Your task to perform on an android device: move an email to a new category in the gmail app Image 0: 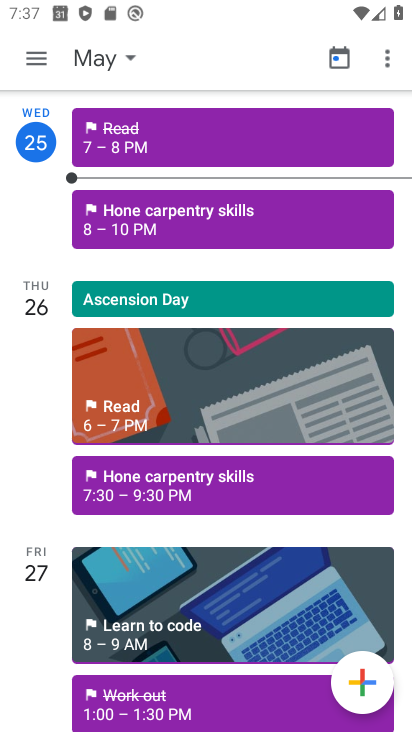
Step 0: press home button
Your task to perform on an android device: move an email to a new category in the gmail app Image 1: 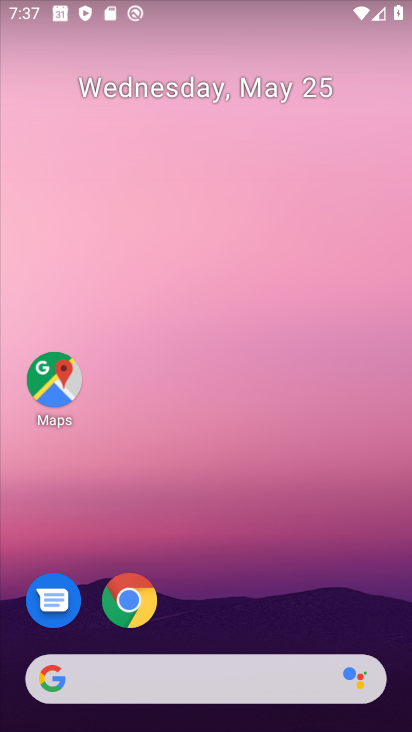
Step 1: drag from (256, 623) to (237, 146)
Your task to perform on an android device: move an email to a new category in the gmail app Image 2: 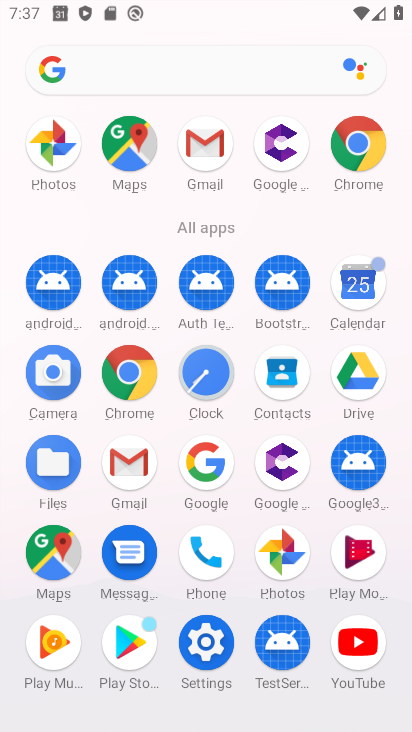
Step 2: click (221, 142)
Your task to perform on an android device: move an email to a new category in the gmail app Image 3: 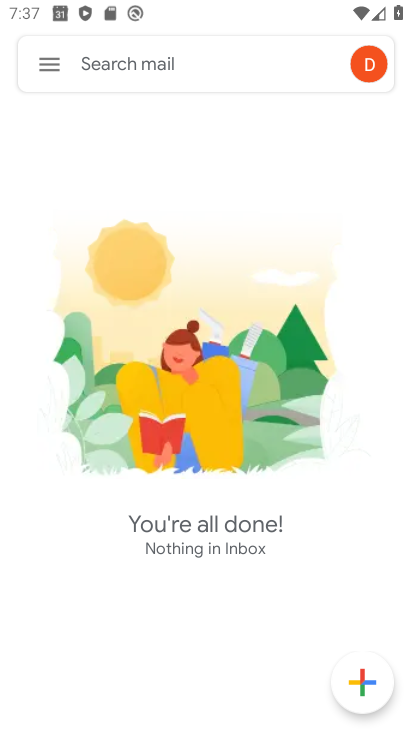
Step 3: click (25, 57)
Your task to perform on an android device: move an email to a new category in the gmail app Image 4: 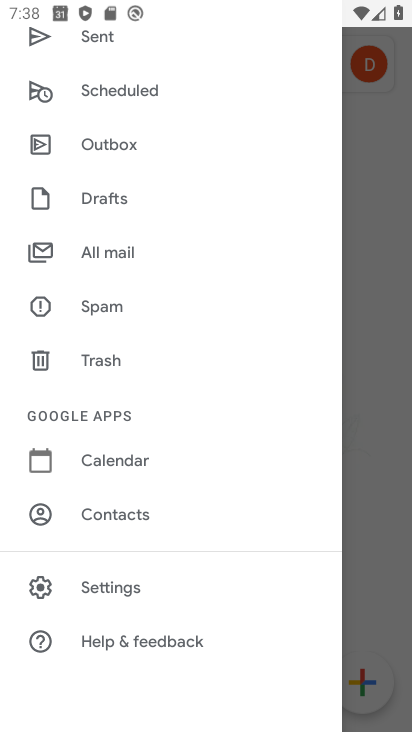
Step 4: click (111, 254)
Your task to perform on an android device: move an email to a new category in the gmail app Image 5: 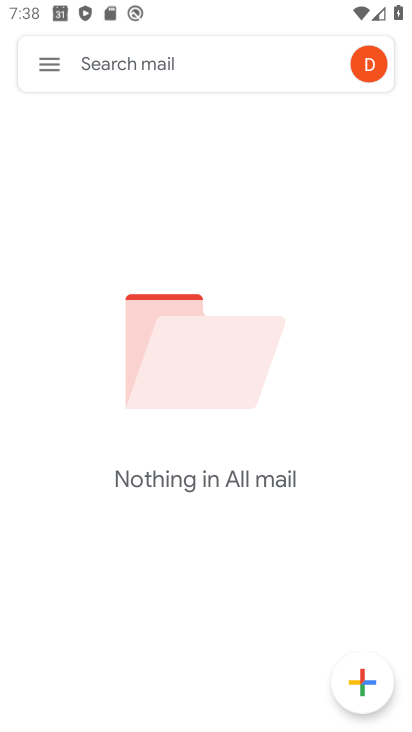
Step 5: task complete